Your task to perform on an android device: turn off smart reply in the gmail app Image 0: 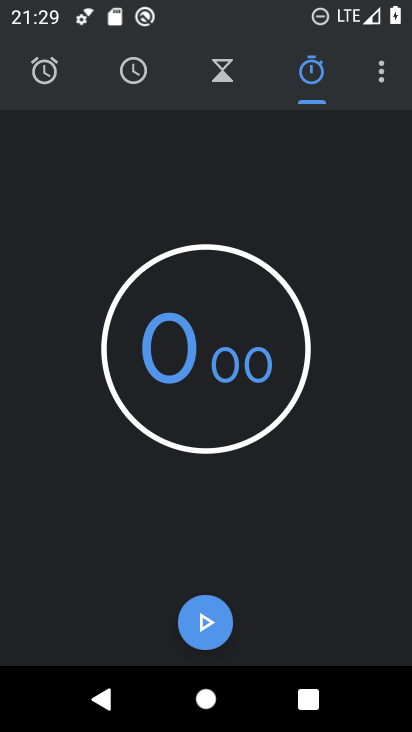
Step 0: press home button
Your task to perform on an android device: turn off smart reply in the gmail app Image 1: 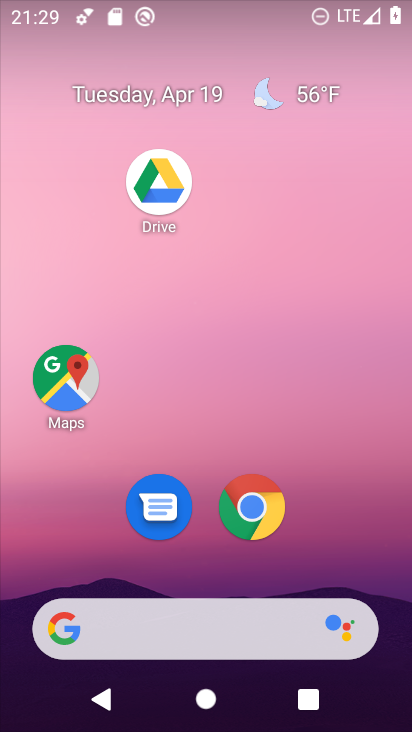
Step 1: drag from (328, 517) to (335, 109)
Your task to perform on an android device: turn off smart reply in the gmail app Image 2: 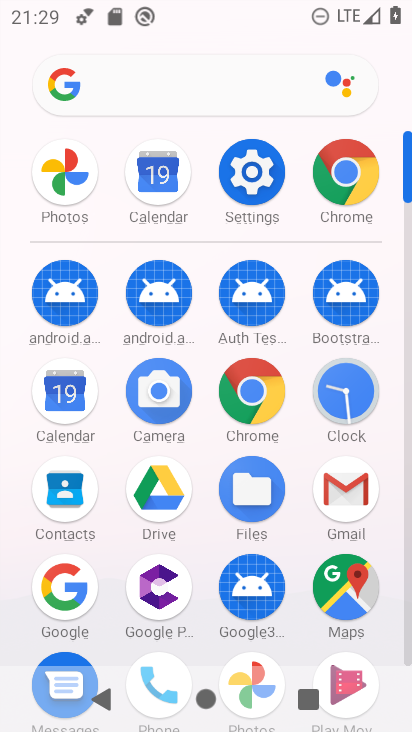
Step 2: click (332, 484)
Your task to perform on an android device: turn off smart reply in the gmail app Image 3: 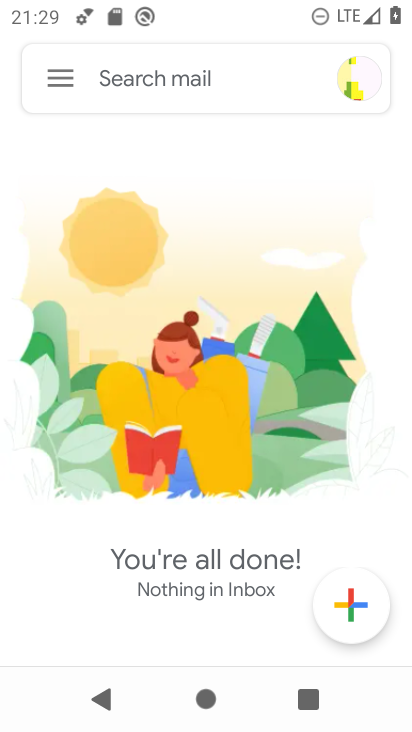
Step 3: click (58, 79)
Your task to perform on an android device: turn off smart reply in the gmail app Image 4: 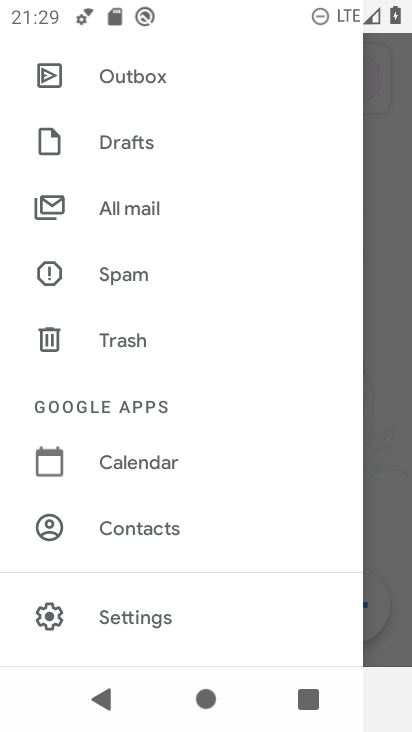
Step 4: click (128, 608)
Your task to perform on an android device: turn off smart reply in the gmail app Image 5: 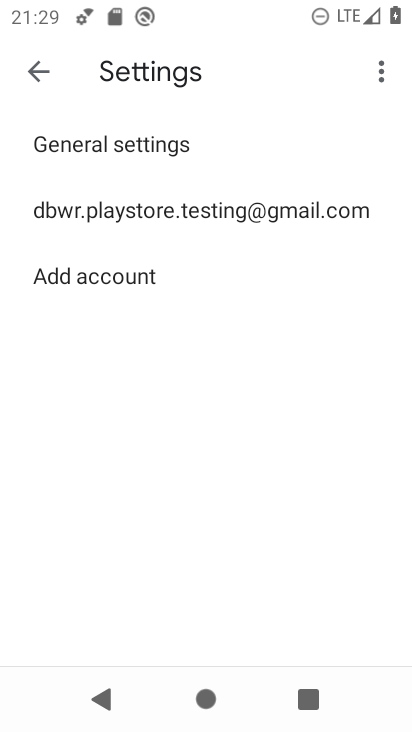
Step 5: click (275, 206)
Your task to perform on an android device: turn off smart reply in the gmail app Image 6: 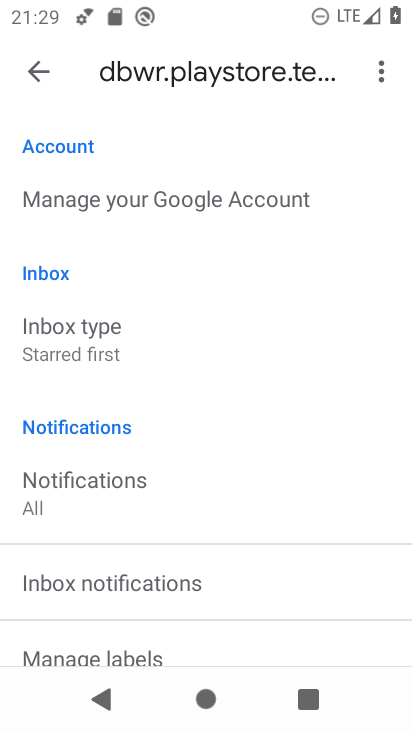
Step 6: drag from (243, 583) to (321, 173)
Your task to perform on an android device: turn off smart reply in the gmail app Image 7: 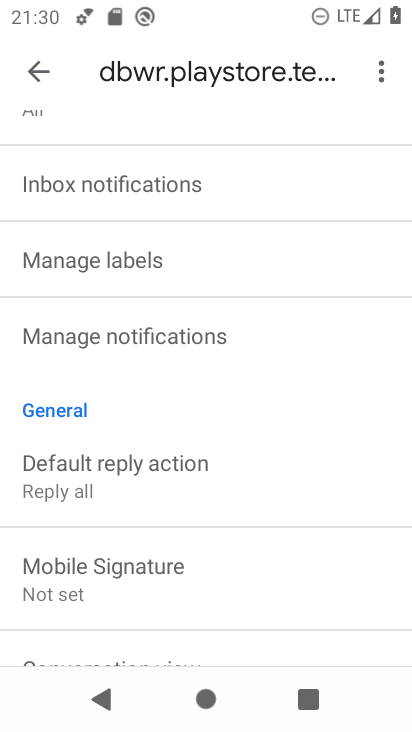
Step 7: drag from (230, 563) to (290, 177)
Your task to perform on an android device: turn off smart reply in the gmail app Image 8: 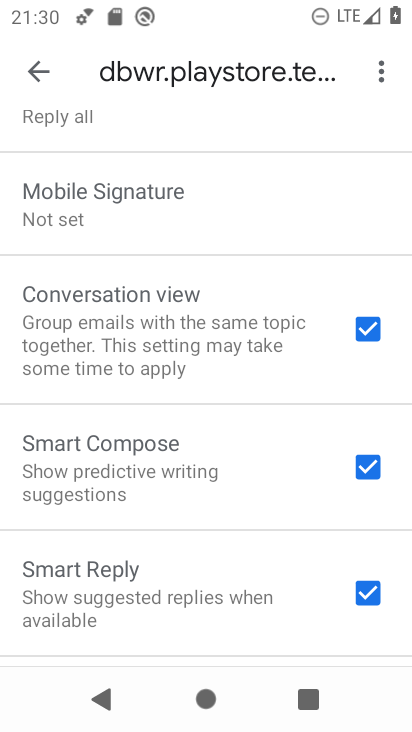
Step 8: click (371, 593)
Your task to perform on an android device: turn off smart reply in the gmail app Image 9: 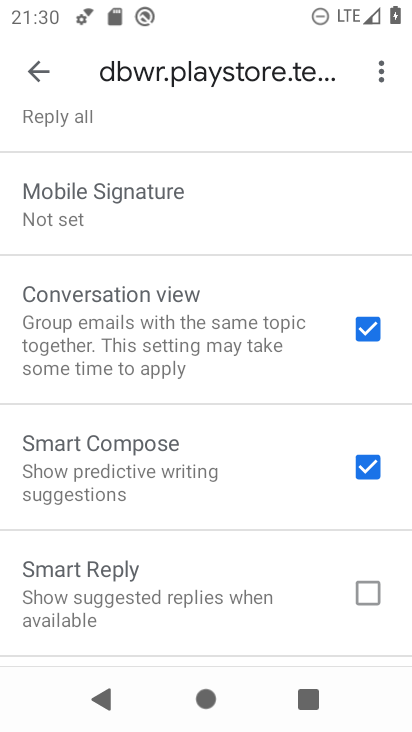
Step 9: task complete